Your task to perform on an android device: turn smart compose on in the gmail app Image 0: 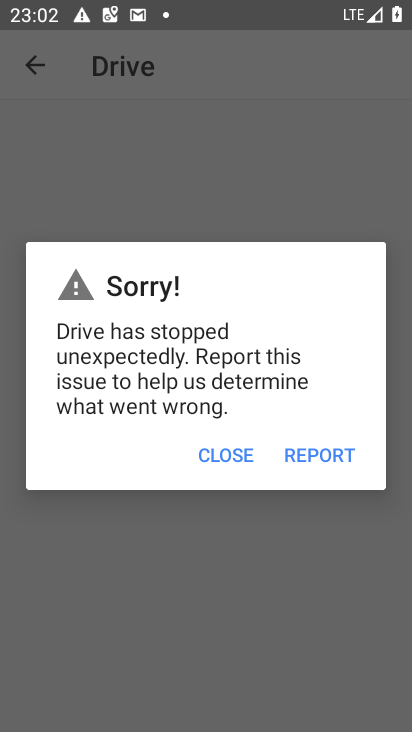
Step 0: press home button
Your task to perform on an android device: turn smart compose on in the gmail app Image 1: 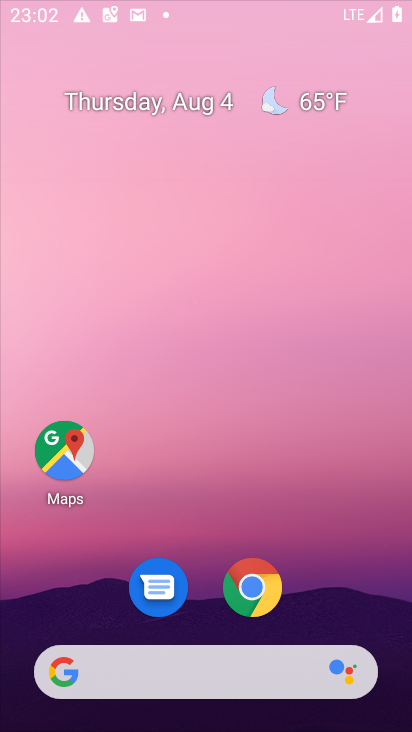
Step 1: drag from (176, 656) to (224, 209)
Your task to perform on an android device: turn smart compose on in the gmail app Image 2: 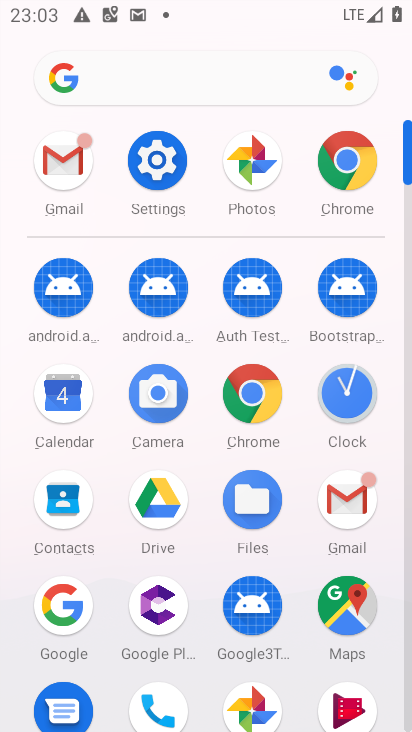
Step 2: click (353, 497)
Your task to perform on an android device: turn smart compose on in the gmail app Image 3: 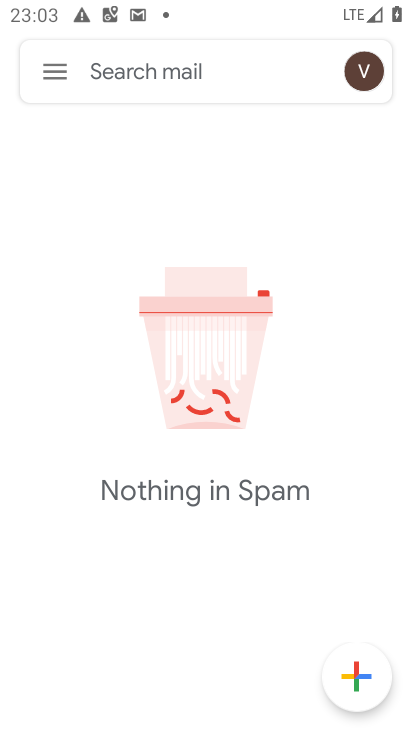
Step 3: click (52, 62)
Your task to perform on an android device: turn smart compose on in the gmail app Image 4: 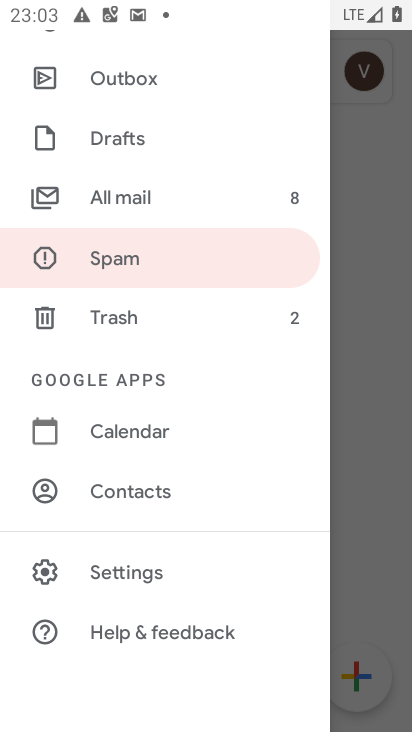
Step 4: click (104, 567)
Your task to perform on an android device: turn smart compose on in the gmail app Image 5: 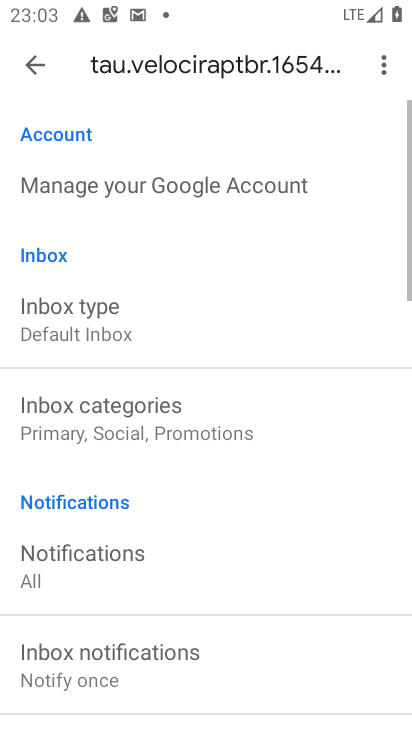
Step 5: task complete